Your task to perform on an android device: Open wifi settings Image 0: 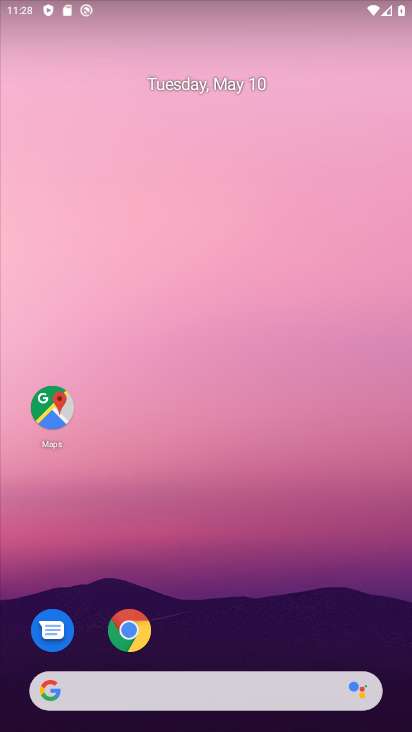
Step 0: drag from (289, 609) to (353, 71)
Your task to perform on an android device: Open wifi settings Image 1: 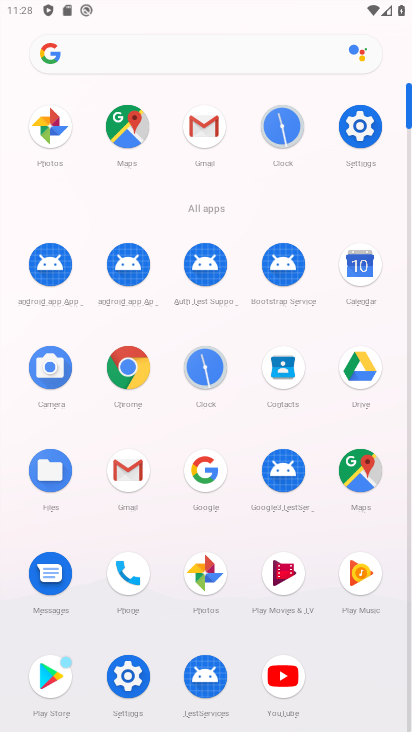
Step 1: click (362, 116)
Your task to perform on an android device: Open wifi settings Image 2: 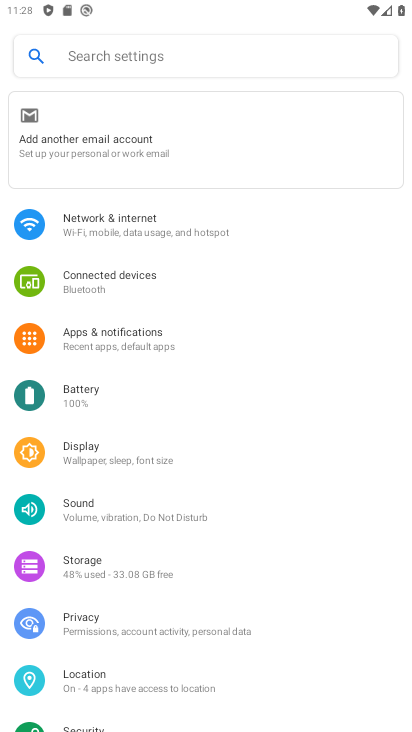
Step 2: click (199, 207)
Your task to perform on an android device: Open wifi settings Image 3: 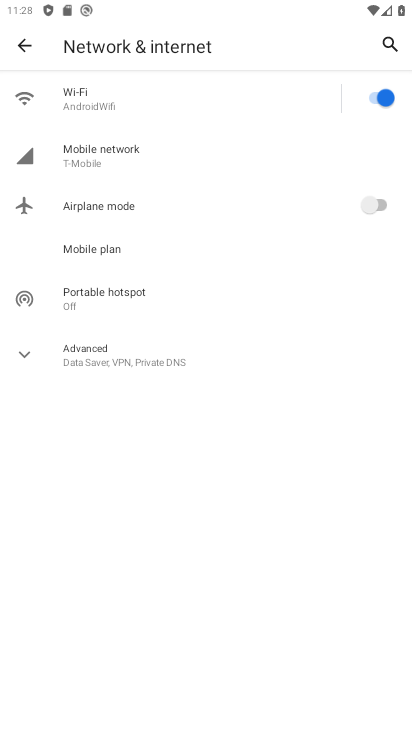
Step 3: click (210, 96)
Your task to perform on an android device: Open wifi settings Image 4: 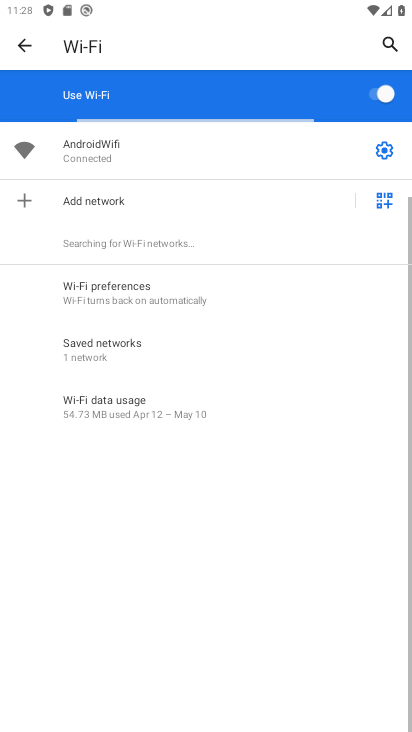
Step 4: click (386, 144)
Your task to perform on an android device: Open wifi settings Image 5: 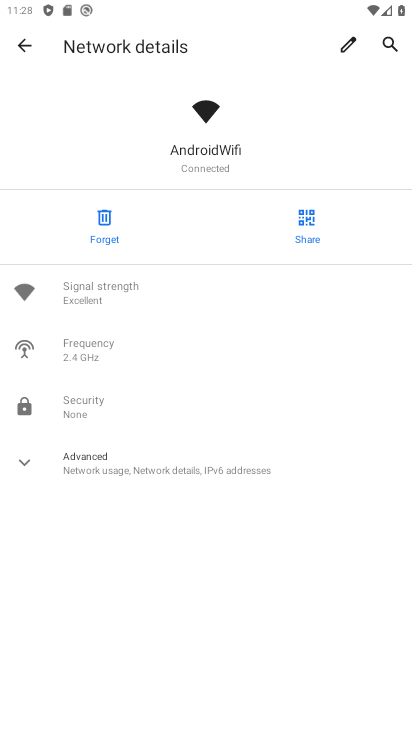
Step 5: task complete